Your task to perform on an android device: Clear all items from cart on target. Image 0: 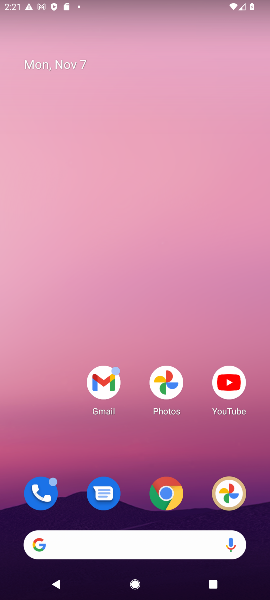
Step 0: press home button
Your task to perform on an android device: Clear all items from cart on target. Image 1: 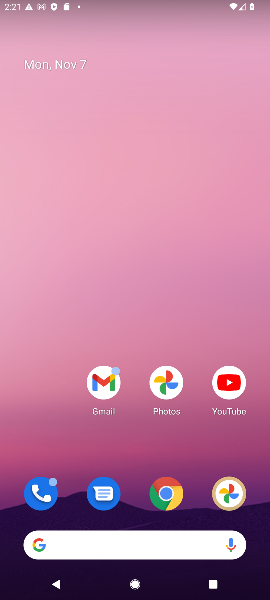
Step 1: drag from (135, 472) to (136, 73)
Your task to perform on an android device: Clear all items from cart on target. Image 2: 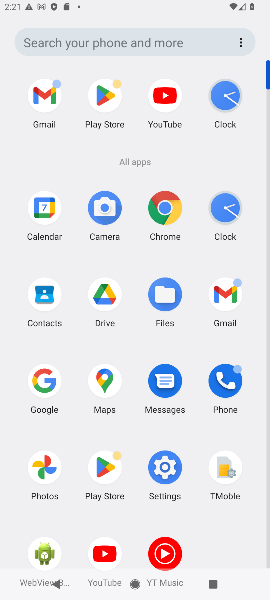
Step 2: click (163, 205)
Your task to perform on an android device: Clear all items from cart on target. Image 3: 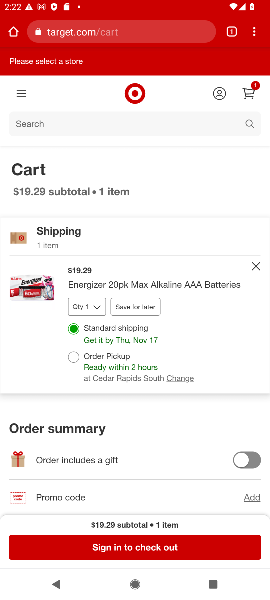
Step 3: click (250, 87)
Your task to perform on an android device: Clear all items from cart on target. Image 4: 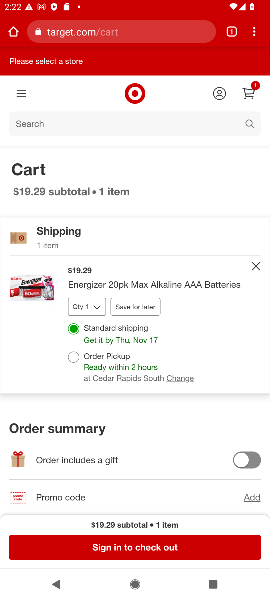
Step 4: click (256, 264)
Your task to perform on an android device: Clear all items from cart on target. Image 5: 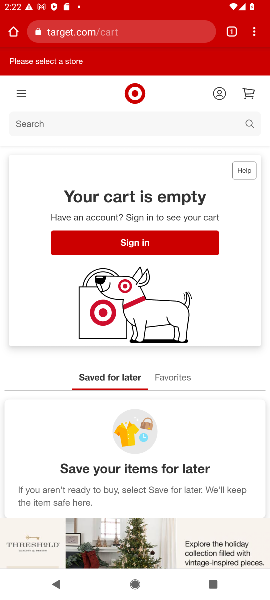
Step 5: task complete